Your task to perform on an android device: turn pop-ups on in chrome Image 0: 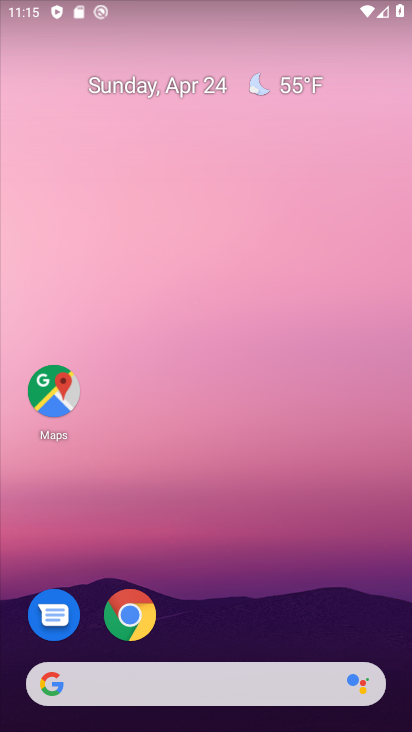
Step 0: click (127, 612)
Your task to perform on an android device: turn pop-ups on in chrome Image 1: 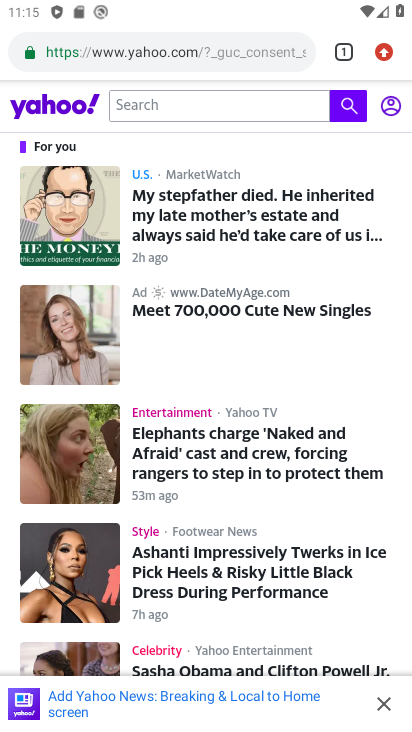
Step 1: click (384, 47)
Your task to perform on an android device: turn pop-ups on in chrome Image 2: 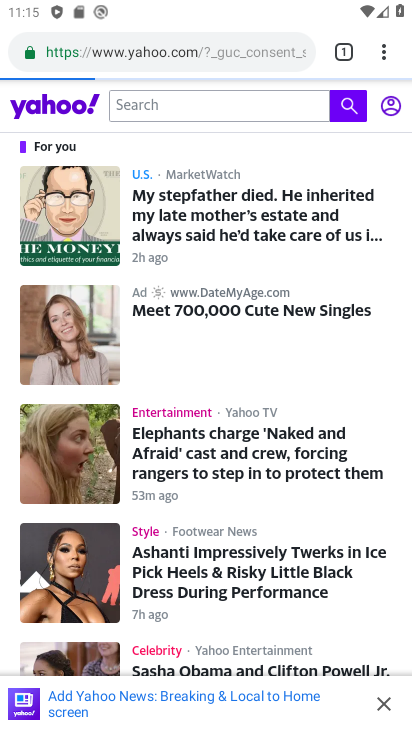
Step 2: click (384, 47)
Your task to perform on an android device: turn pop-ups on in chrome Image 3: 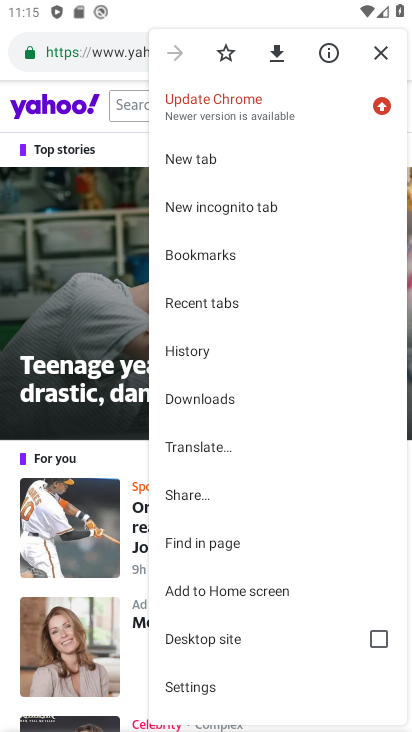
Step 3: click (225, 681)
Your task to perform on an android device: turn pop-ups on in chrome Image 4: 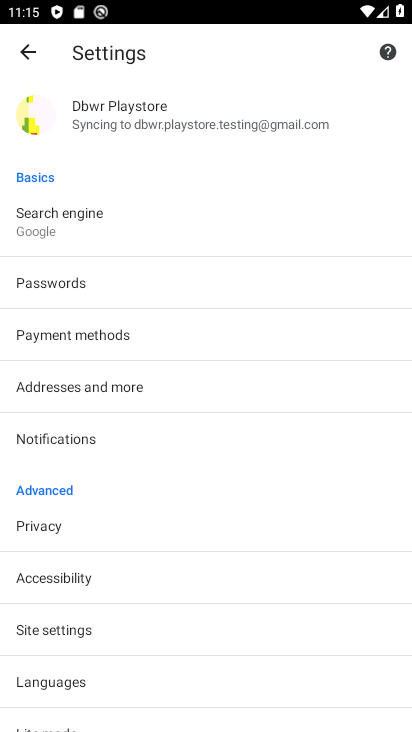
Step 4: click (106, 630)
Your task to perform on an android device: turn pop-ups on in chrome Image 5: 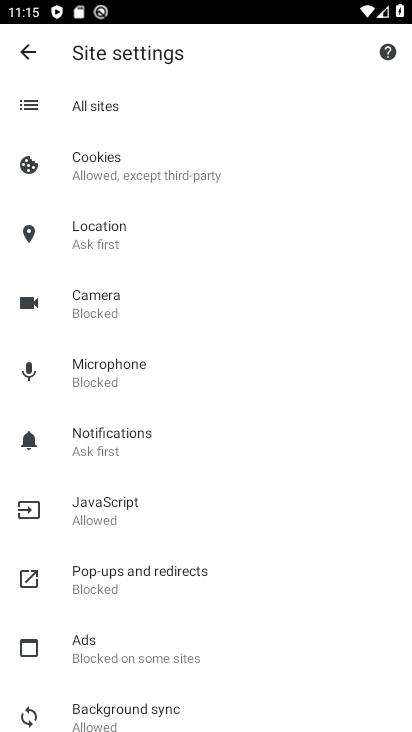
Step 5: click (139, 581)
Your task to perform on an android device: turn pop-ups on in chrome Image 6: 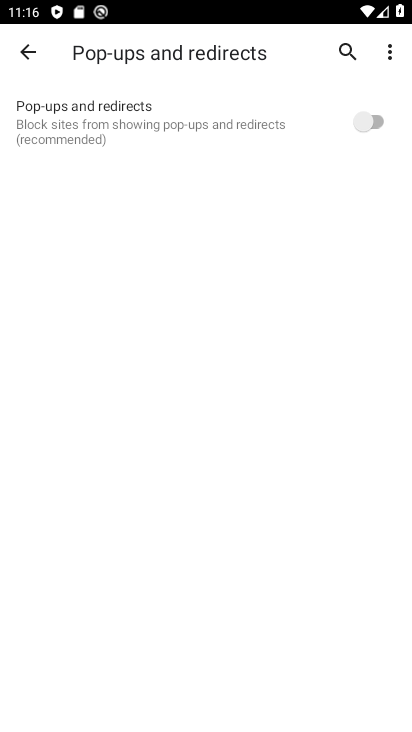
Step 6: task complete